Your task to perform on an android device: change your default location settings in chrome Image 0: 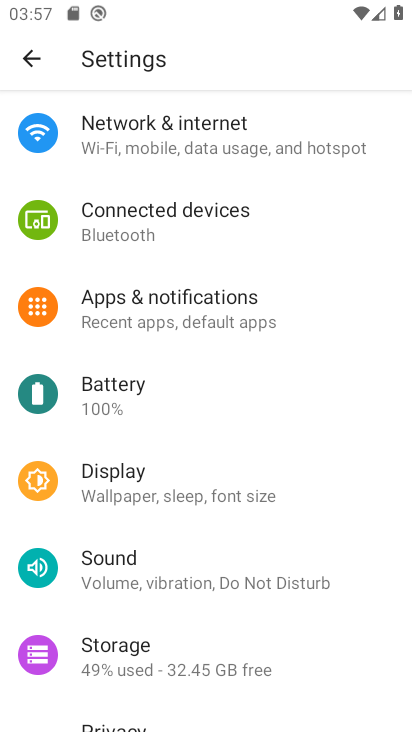
Step 0: press home button
Your task to perform on an android device: change your default location settings in chrome Image 1: 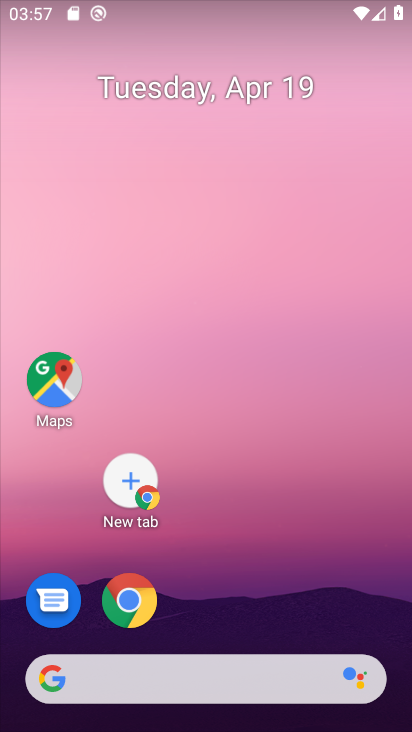
Step 1: click (138, 589)
Your task to perform on an android device: change your default location settings in chrome Image 2: 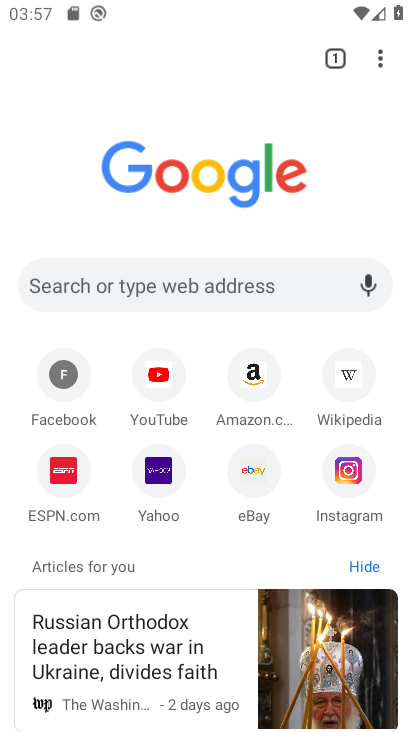
Step 2: click (388, 56)
Your task to perform on an android device: change your default location settings in chrome Image 3: 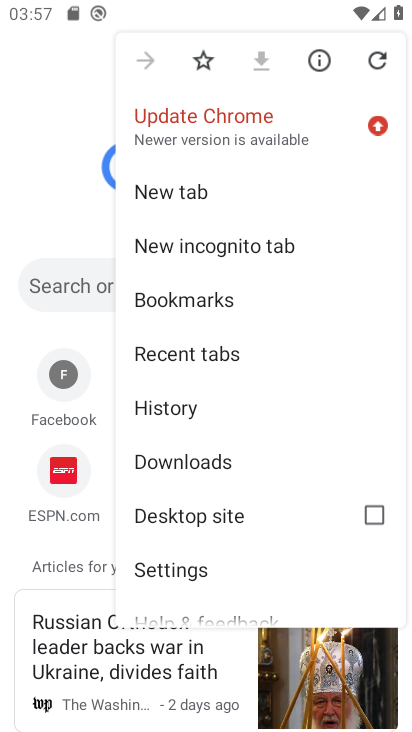
Step 3: drag from (233, 528) to (214, 160)
Your task to perform on an android device: change your default location settings in chrome Image 4: 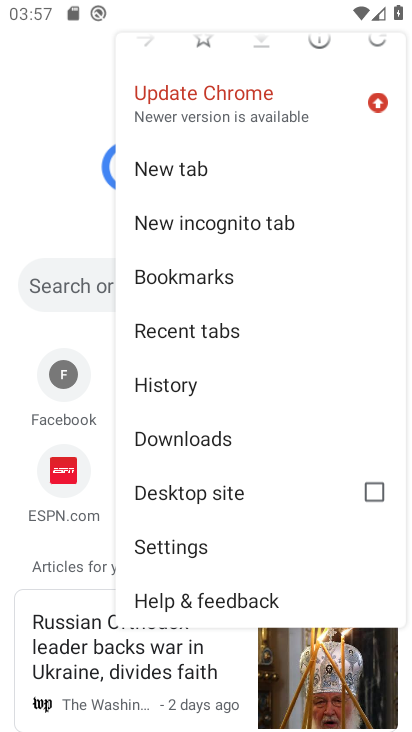
Step 4: click (210, 556)
Your task to perform on an android device: change your default location settings in chrome Image 5: 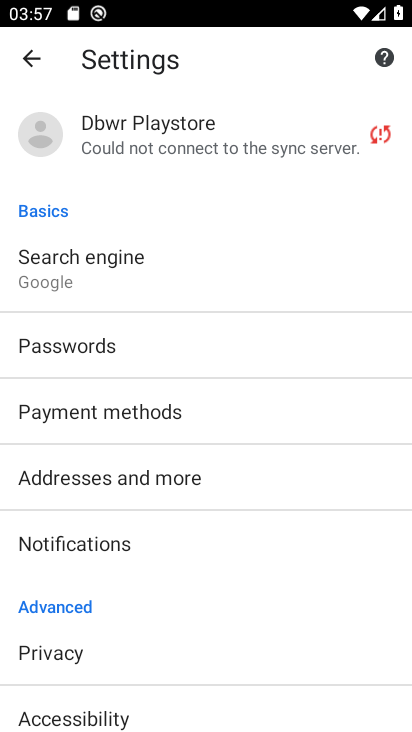
Step 5: drag from (115, 615) to (163, 192)
Your task to perform on an android device: change your default location settings in chrome Image 6: 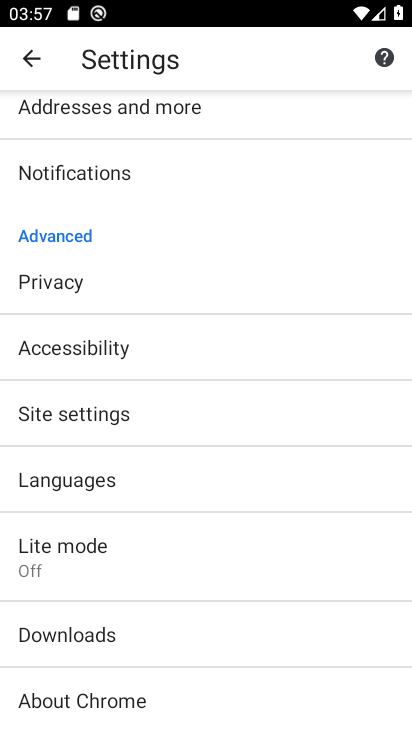
Step 6: drag from (206, 621) to (241, 160)
Your task to perform on an android device: change your default location settings in chrome Image 7: 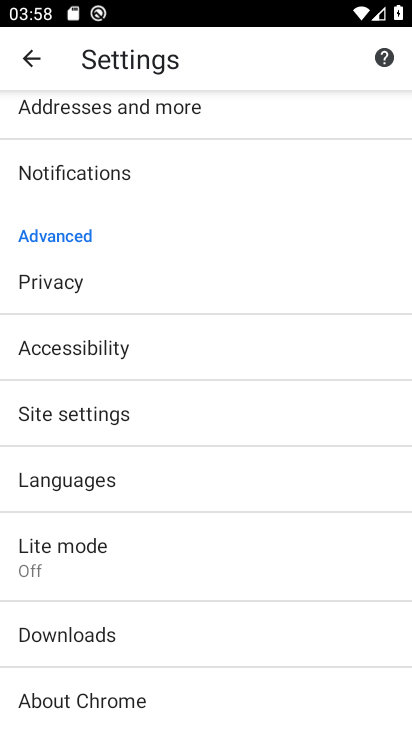
Step 7: drag from (206, 166) to (165, 581)
Your task to perform on an android device: change your default location settings in chrome Image 8: 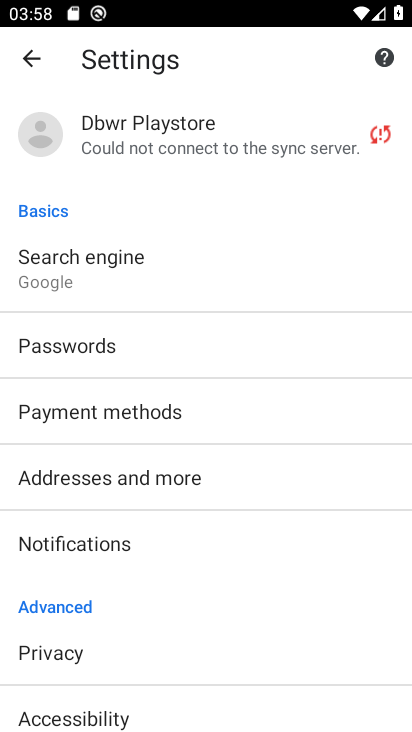
Step 8: drag from (143, 615) to (137, 304)
Your task to perform on an android device: change your default location settings in chrome Image 9: 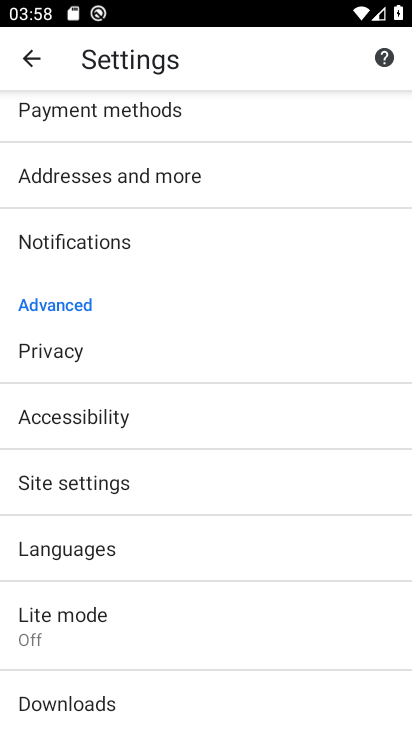
Step 9: drag from (178, 699) to (186, 235)
Your task to perform on an android device: change your default location settings in chrome Image 10: 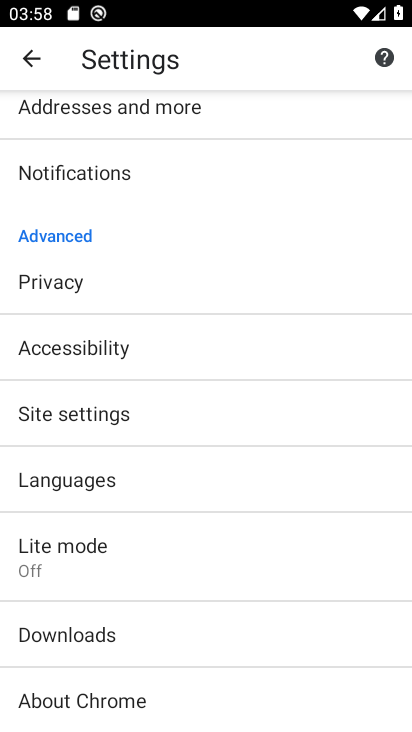
Step 10: click (115, 402)
Your task to perform on an android device: change your default location settings in chrome Image 11: 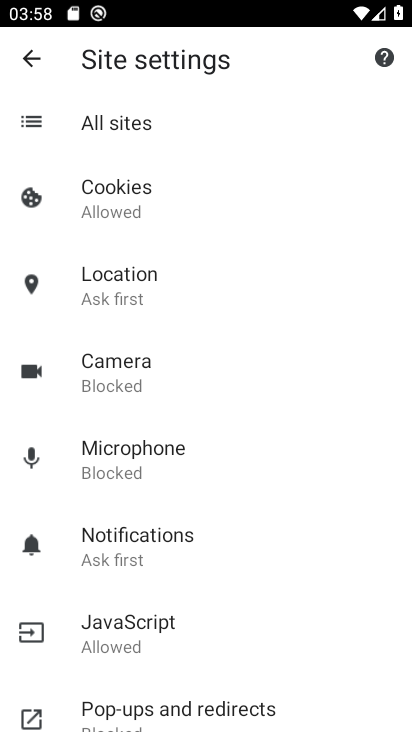
Step 11: click (135, 300)
Your task to perform on an android device: change your default location settings in chrome Image 12: 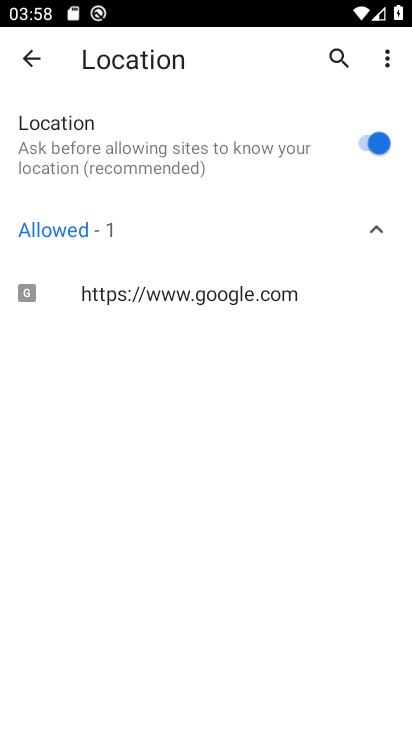
Step 12: click (370, 143)
Your task to perform on an android device: change your default location settings in chrome Image 13: 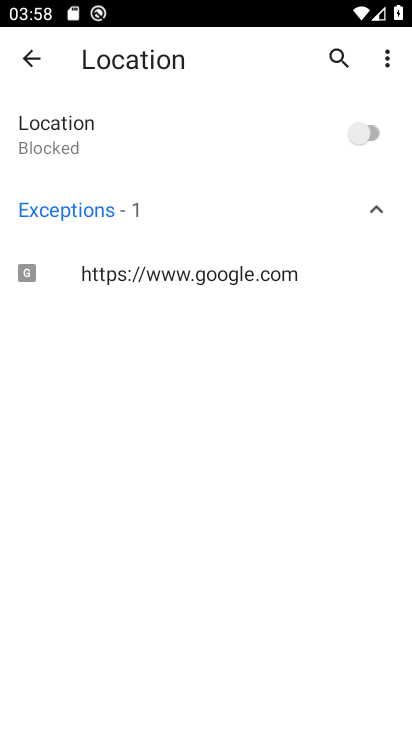
Step 13: task complete